Your task to perform on an android device: Open my contact list Image 0: 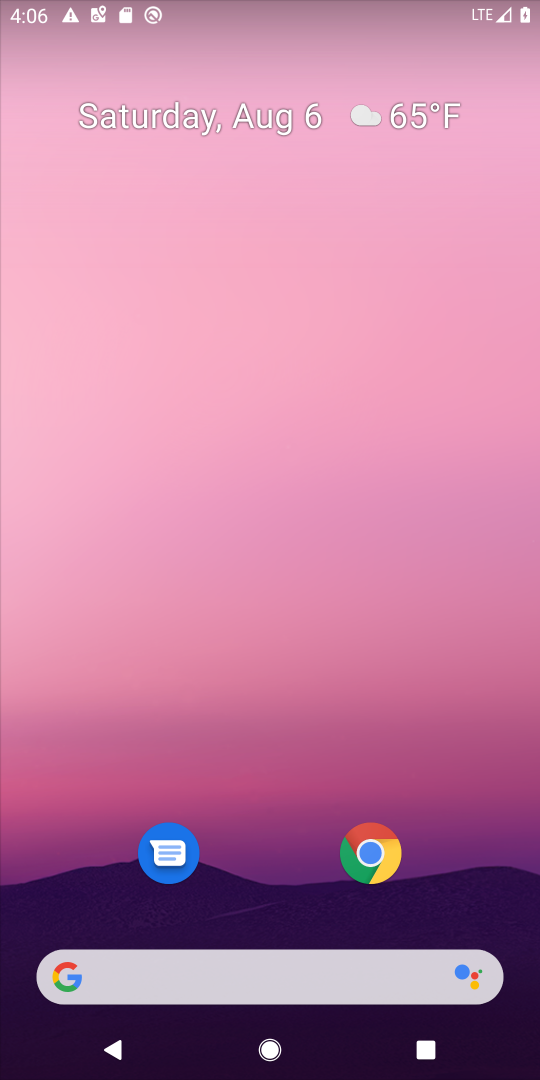
Step 0: drag from (252, 903) to (239, 48)
Your task to perform on an android device: Open my contact list Image 1: 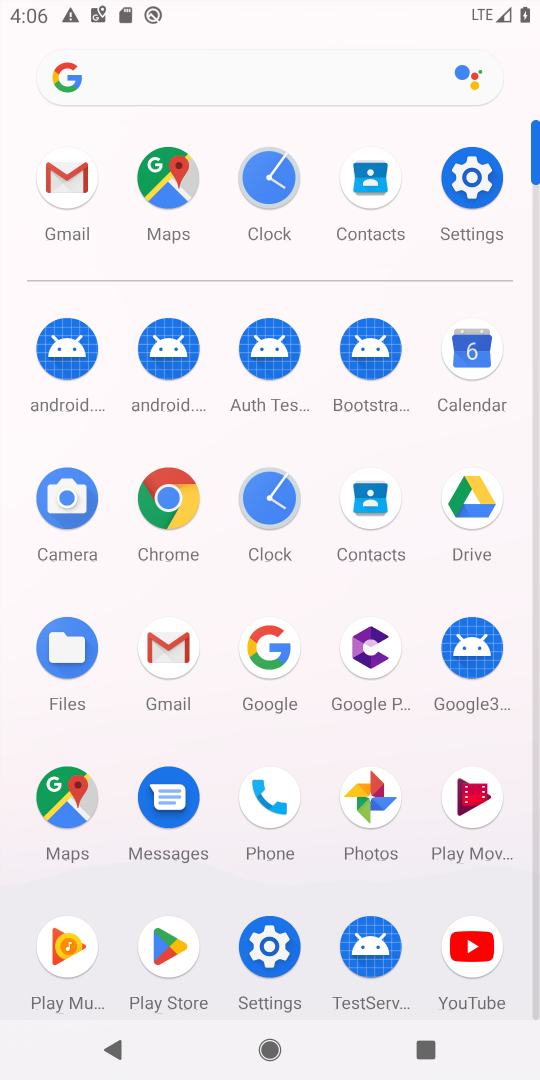
Step 1: click (366, 181)
Your task to perform on an android device: Open my contact list Image 2: 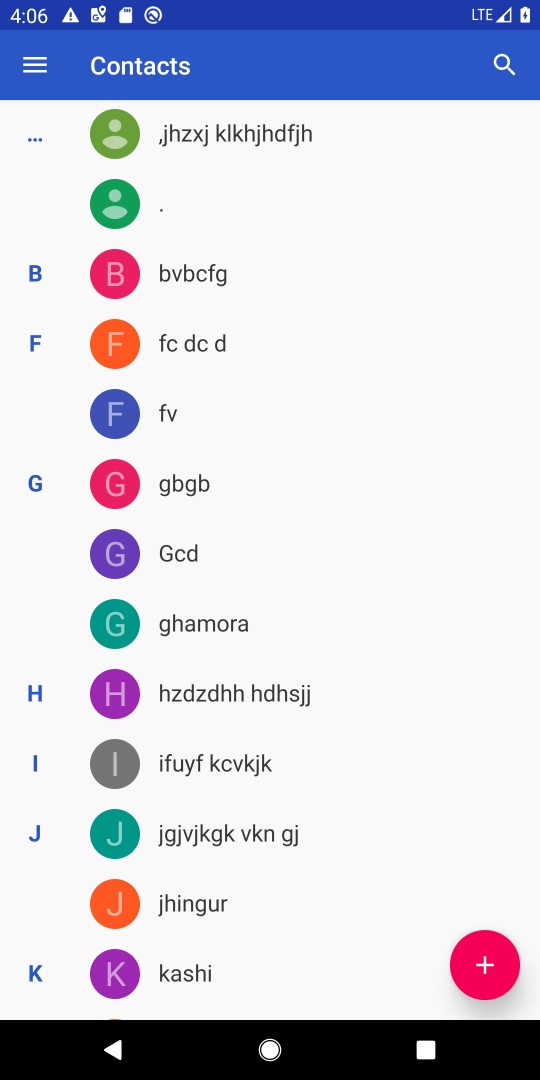
Step 2: task complete